Your task to perform on an android device: Search for razer blackwidow on costco, select the first entry, and add it to the cart. Image 0: 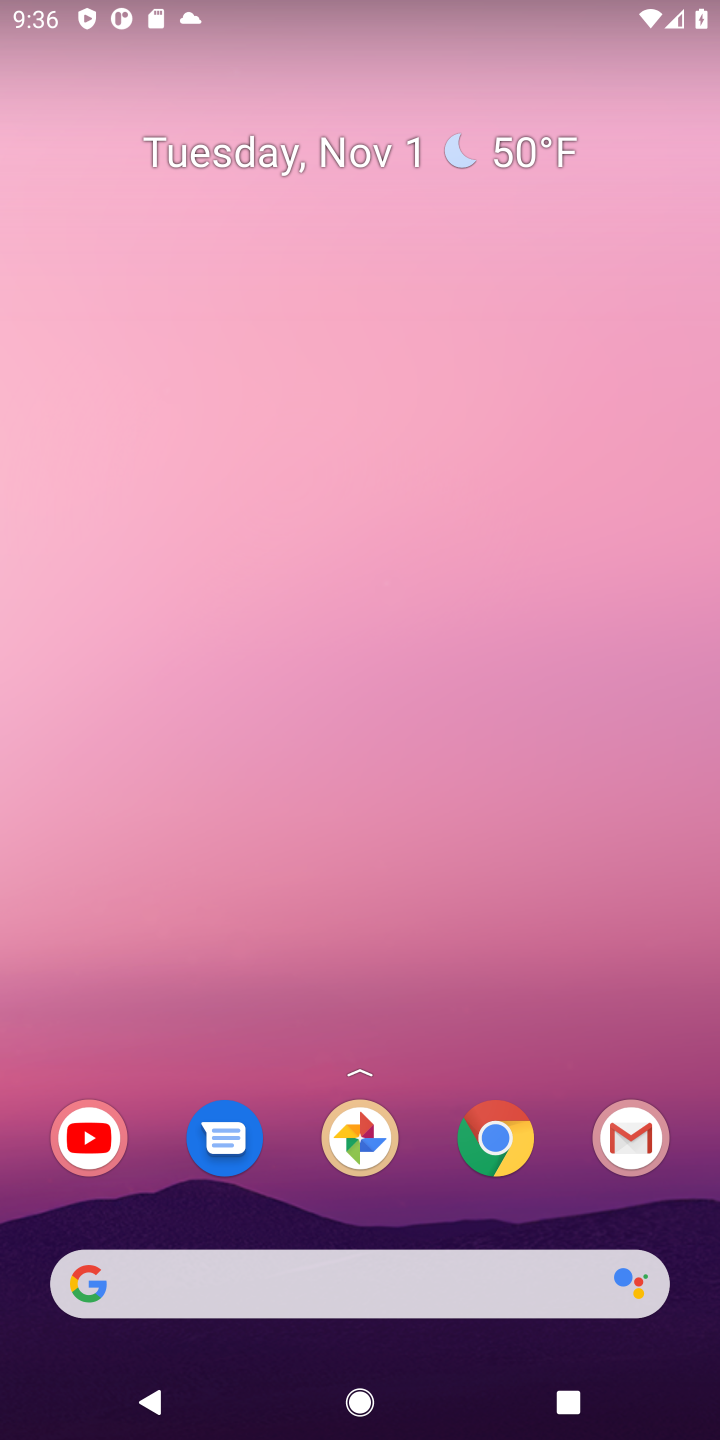
Step 0: click (497, 1144)
Your task to perform on an android device: Search for razer blackwidow on costco, select the first entry, and add it to the cart. Image 1: 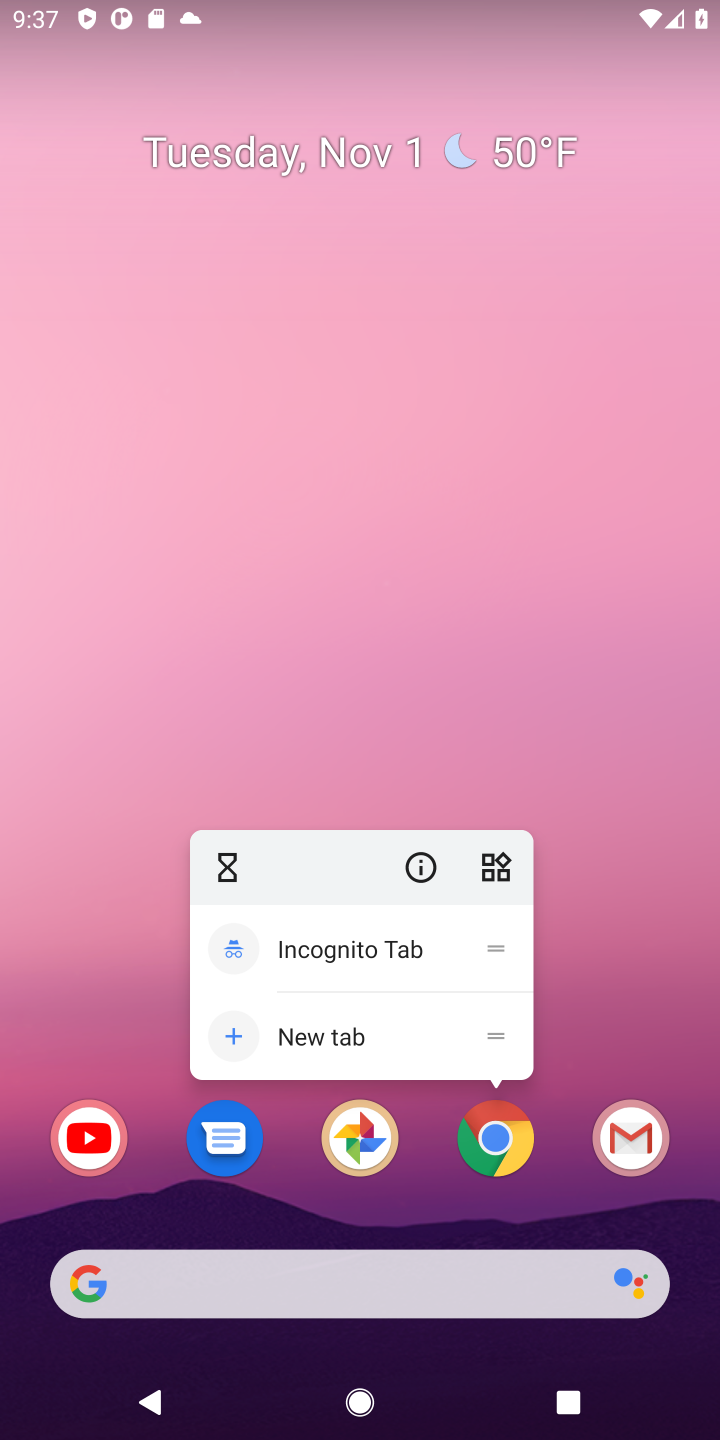
Step 1: click (496, 1143)
Your task to perform on an android device: Search for razer blackwidow on costco, select the first entry, and add it to the cart. Image 2: 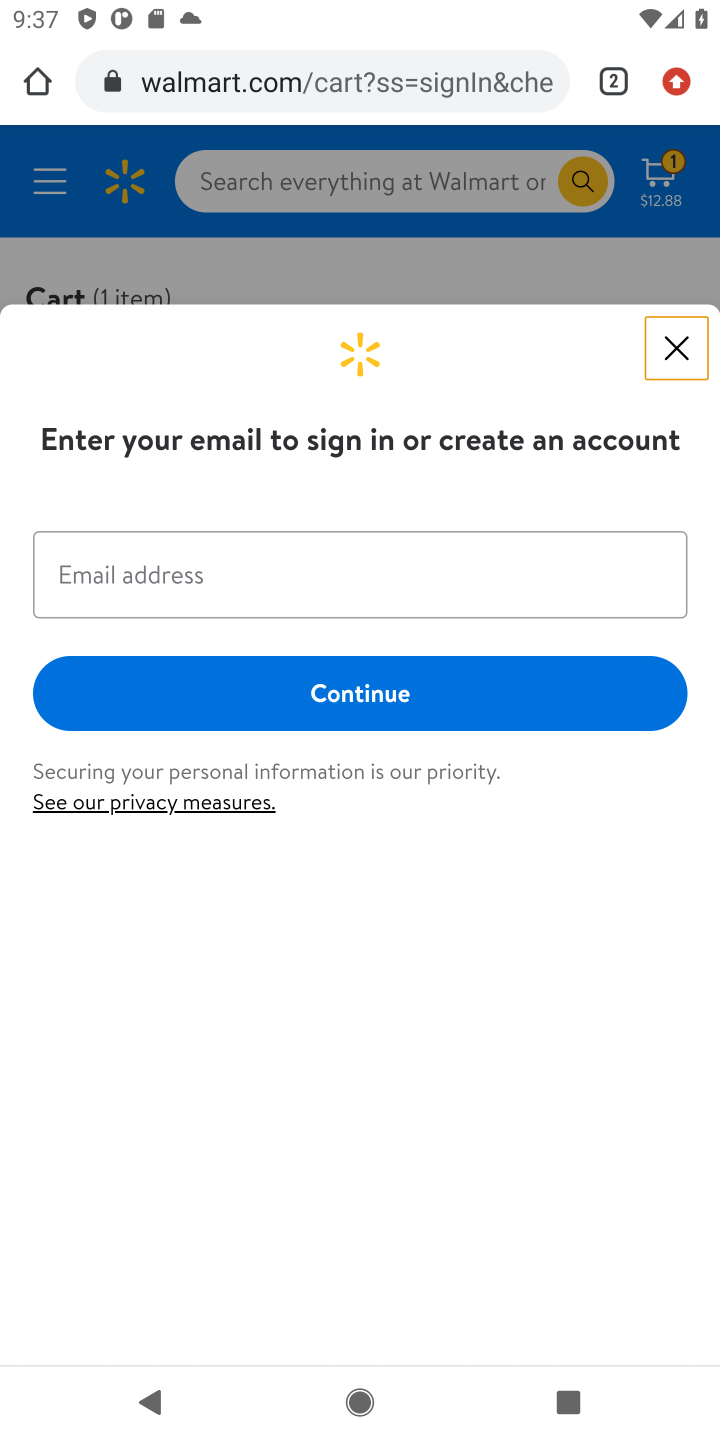
Step 2: click (274, 78)
Your task to perform on an android device: Search for razer blackwidow on costco, select the first entry, and add it to the cart. Image 3: 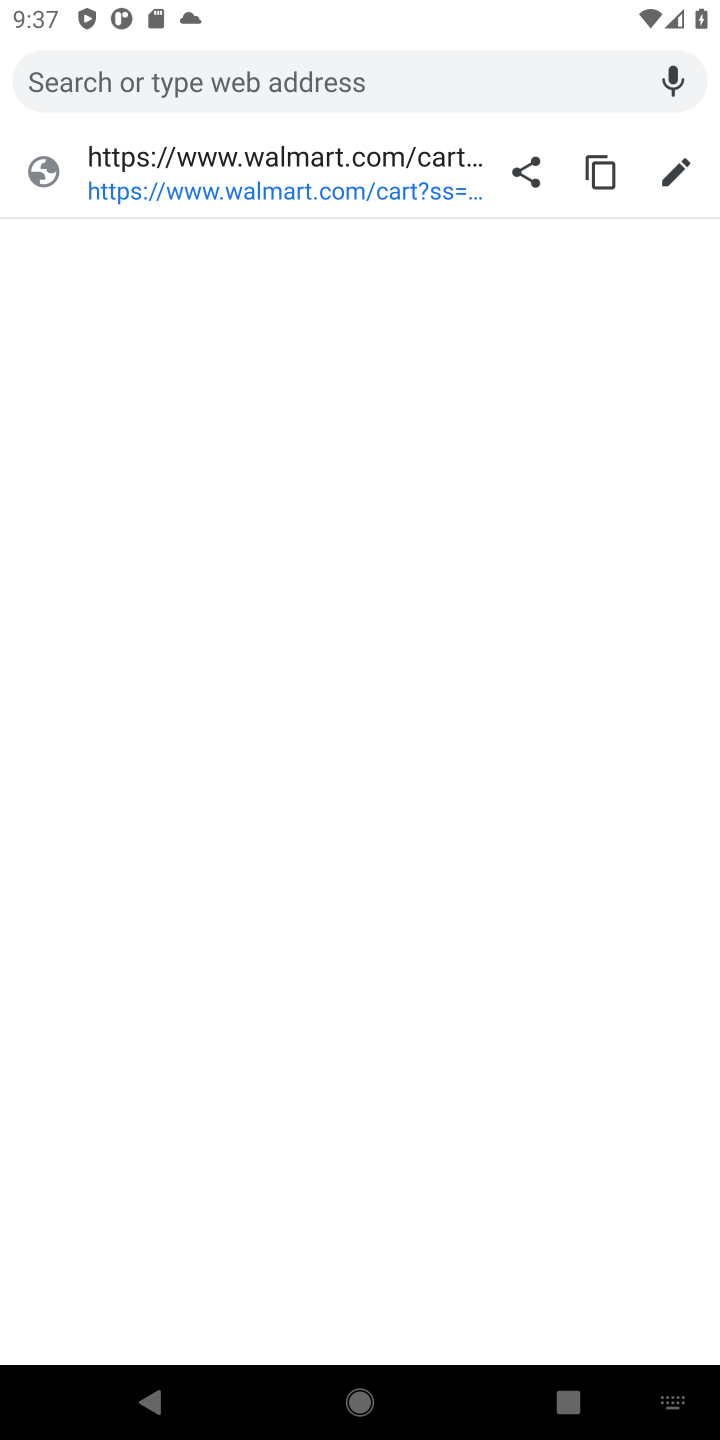
Step 3: type "costco"
Your task to perform on an android device: Search for razer blackwidow on costco, select the first entry, and add it to the cart. Image 4: 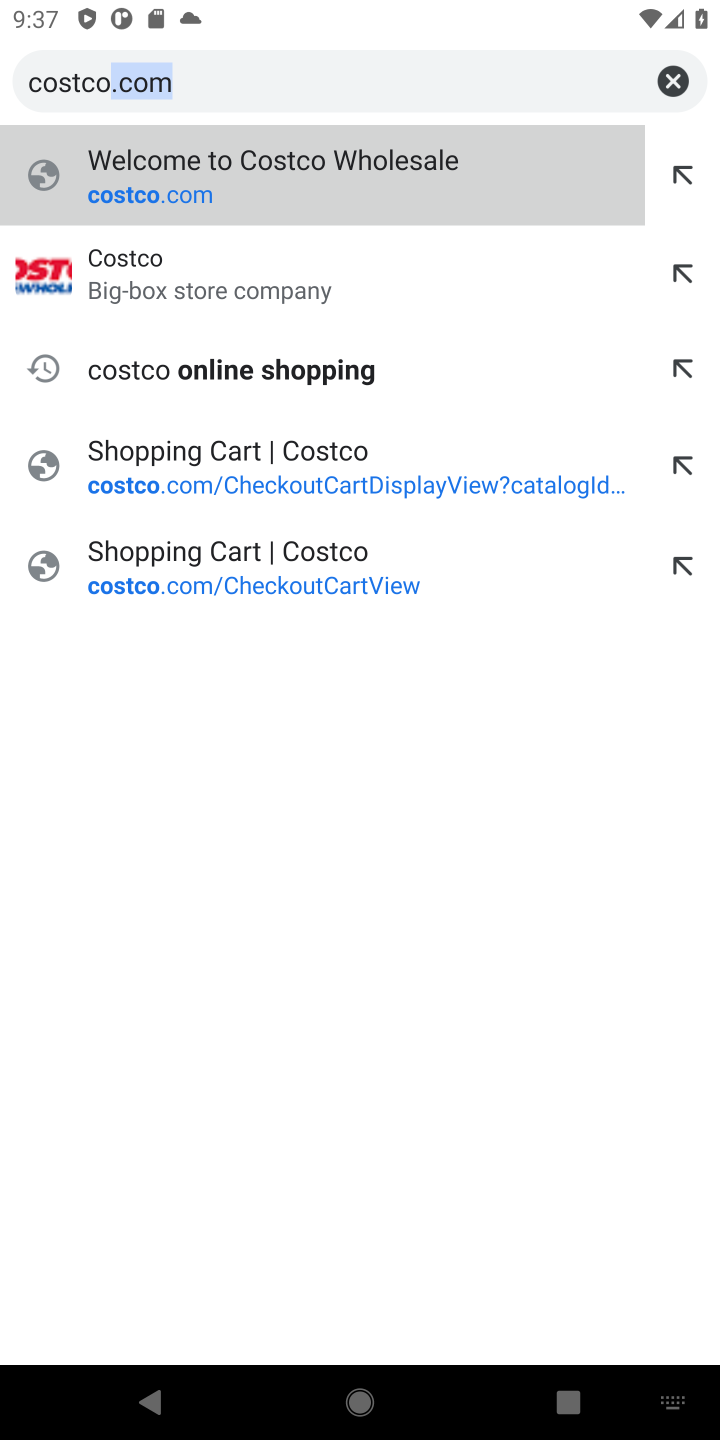
Step 4: click (245, 292)
Your task to perform on an android device: Search for razer blackwidow on costco, select the first entry, and add it to the cart. Image 5: 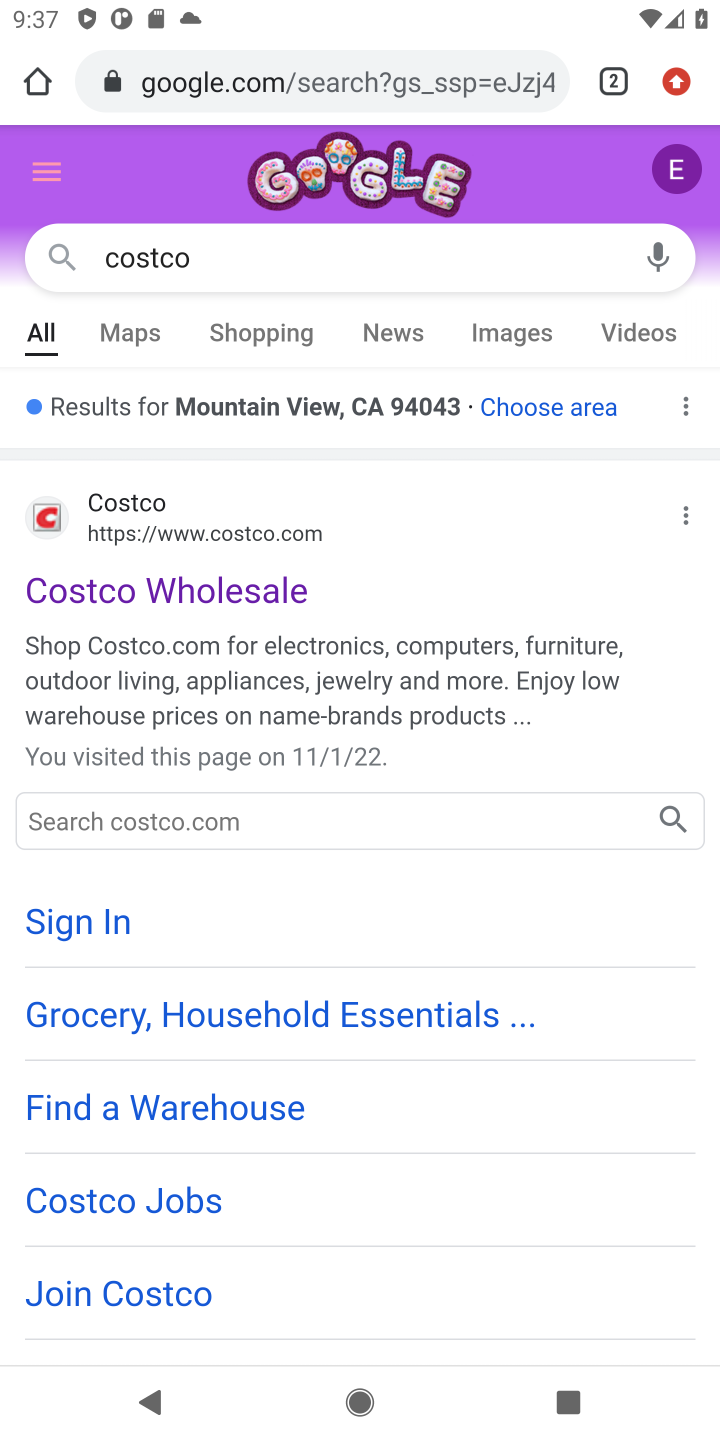
Step 5: click (263, 603)
Your task to perform on an android device: Search for razer blackwidow on costco, select the first entry, and add it to the cart. Image 6: 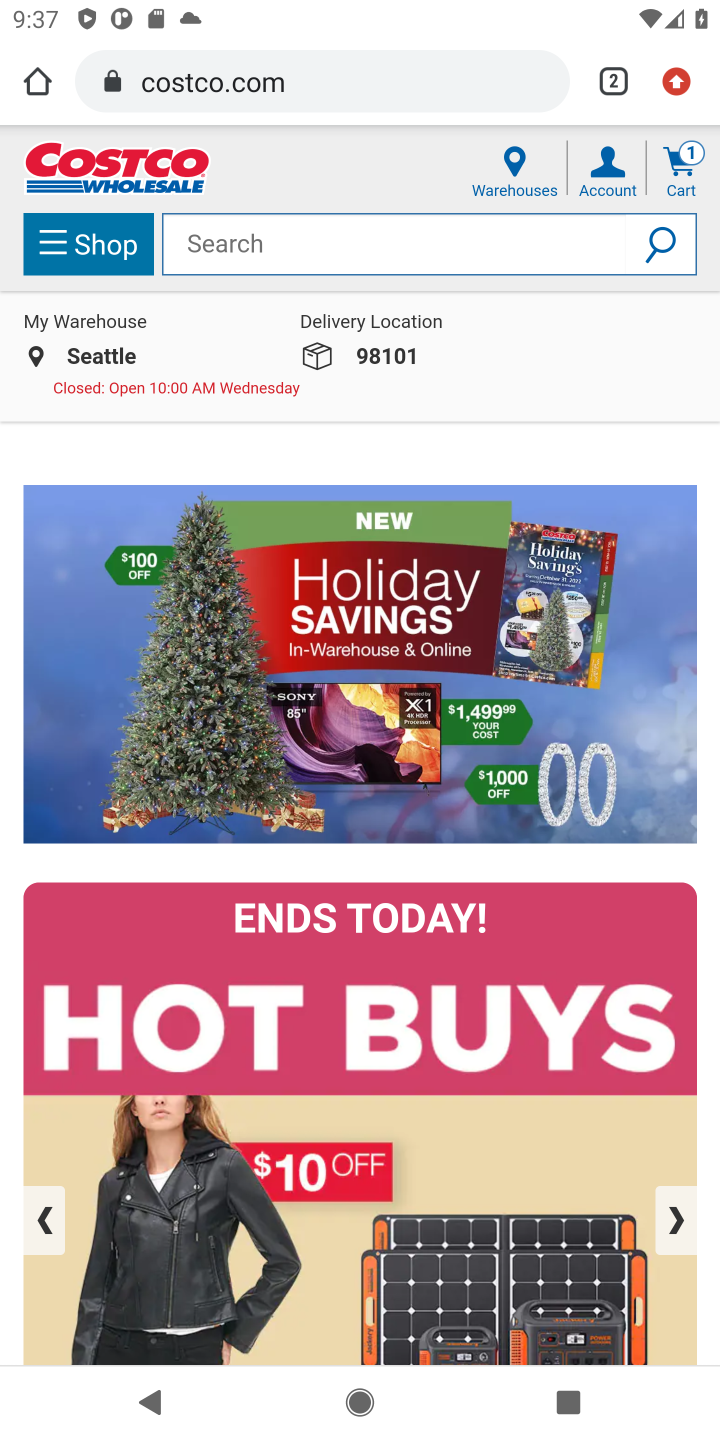
Step 6: click (470, 245)
Your task to perform on an android device: Search for razer blackwidow on costco, select the first entry, and add it to the cart. Image 7: 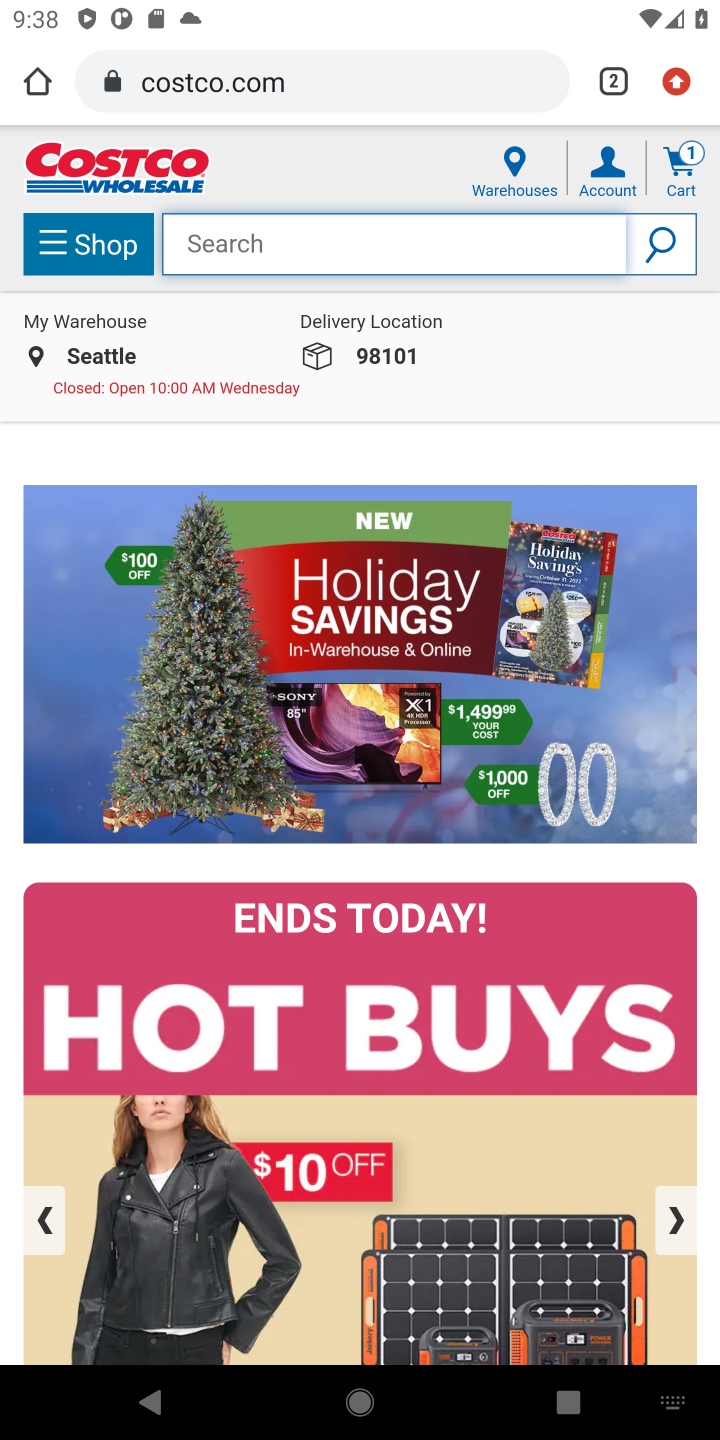
Step 7: type "razer blackwidow"
Your task to perform on an android device: Search for razer blackwidow on costco, select the first entry, and add it to the cart. Image 8: 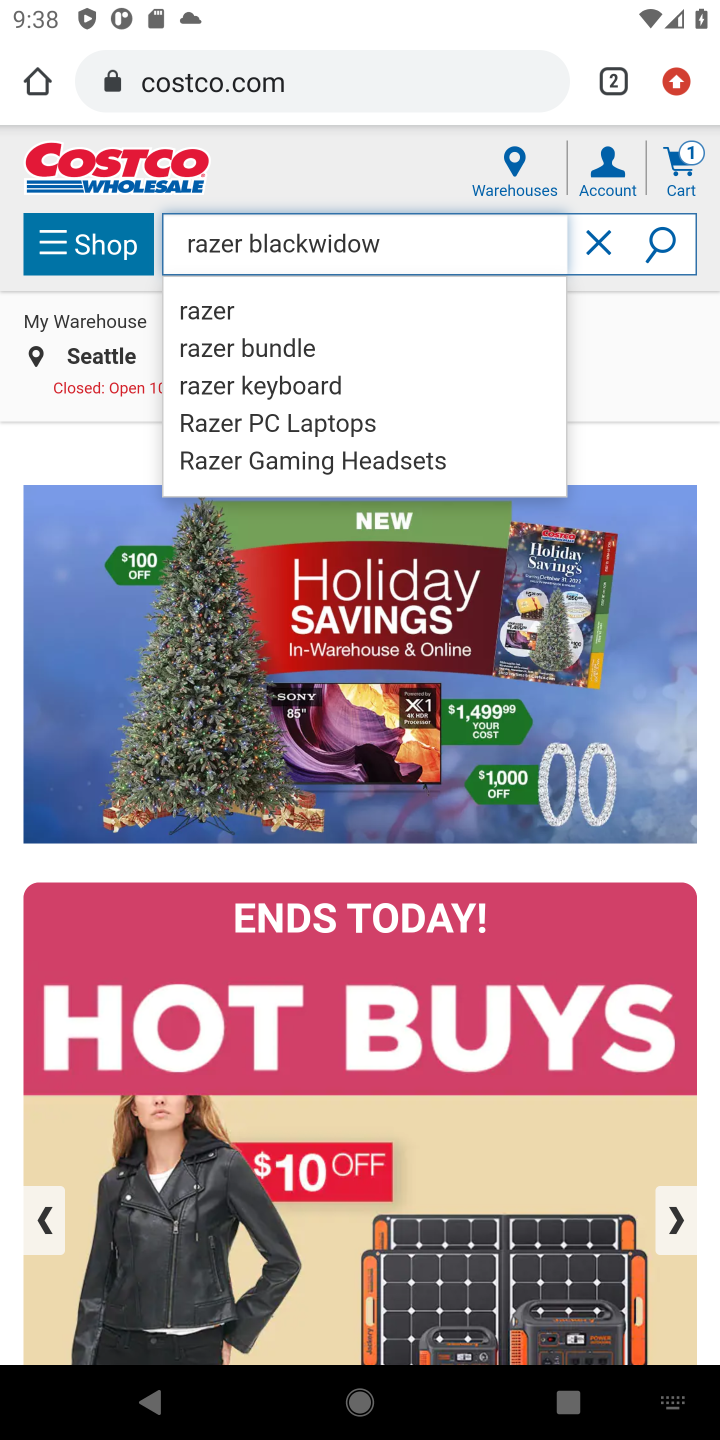
Step 8: click (663, 240)
Your task to perform on an android device: Search for razer blackwidow on costco, select the first entry, and add it to the cart. Image 9: 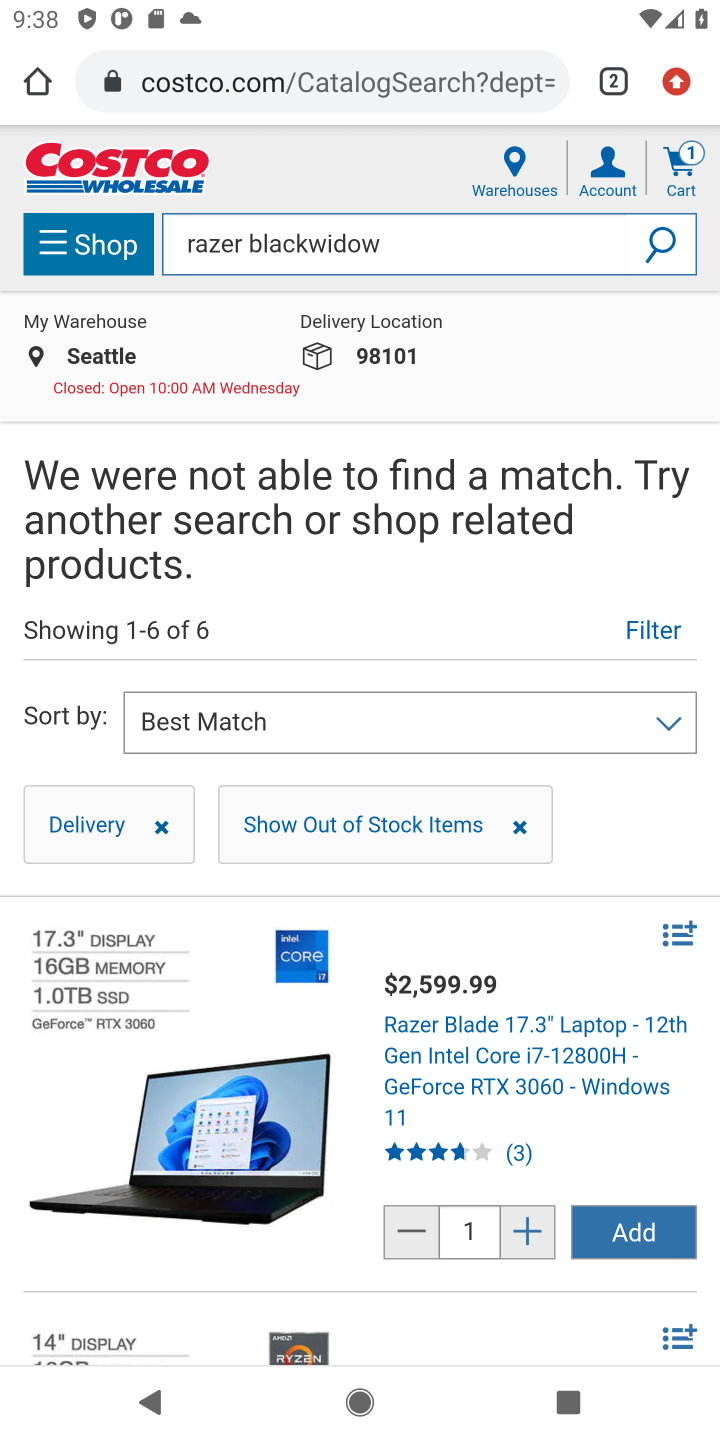
Step 9: task complete